Your task to perform on an android device: What's the weather going to be this weekend? Image 0: 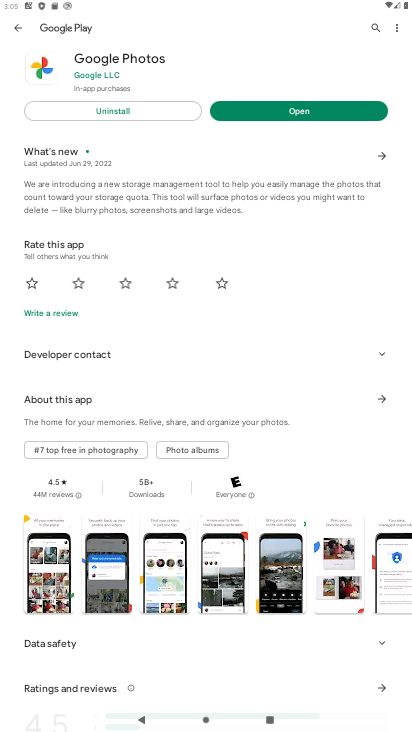
Step 0: press home button
Your task to perform on an android device: What's the weather going to be this weekend? Image 1: 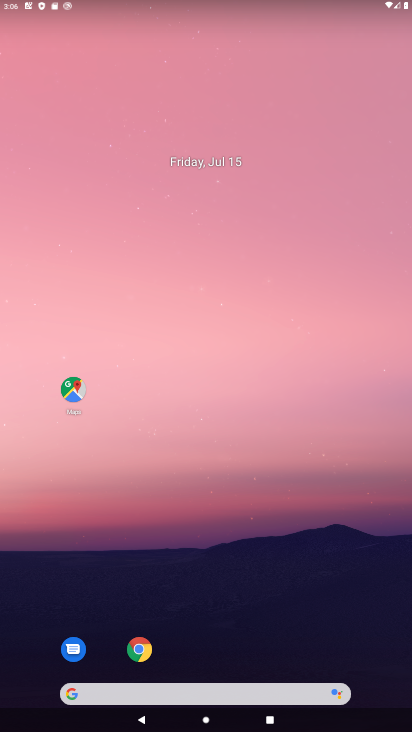
Step 1: drag from (326, 663) to (270, 213)
Your task to perform on an android device: What's the weather going to be this weekend? Image 2: 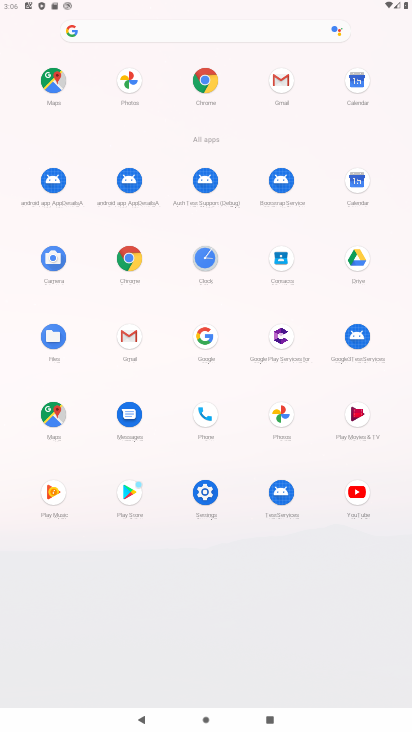
Step 2: click (203, 80)
Your task to perform on an android device: What's the weather going to be this weekend? Image 3: 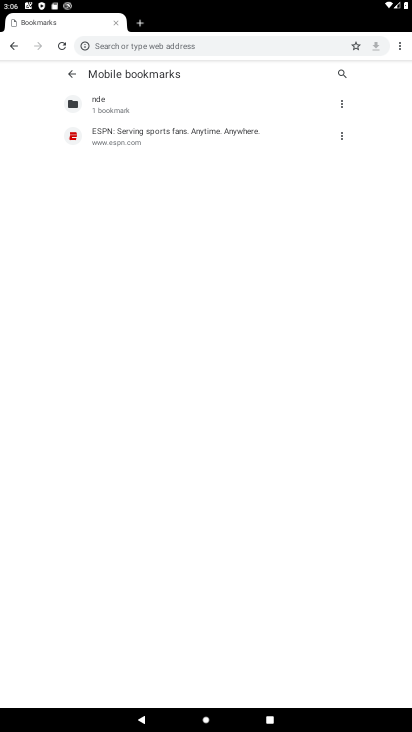
Step 3: click (250, 48)
Your task to perform on an android device: What's the weather going to be this weekend? Image 4: 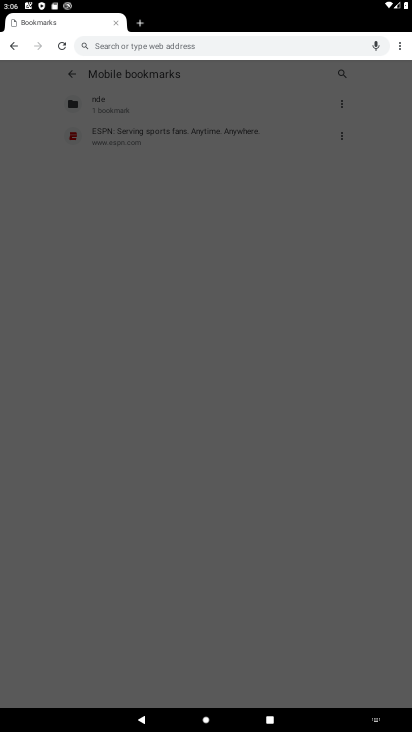
Step 4: type "weather"
Your task to perform on an android device: What's the weather going to be this weekend? Image 5: 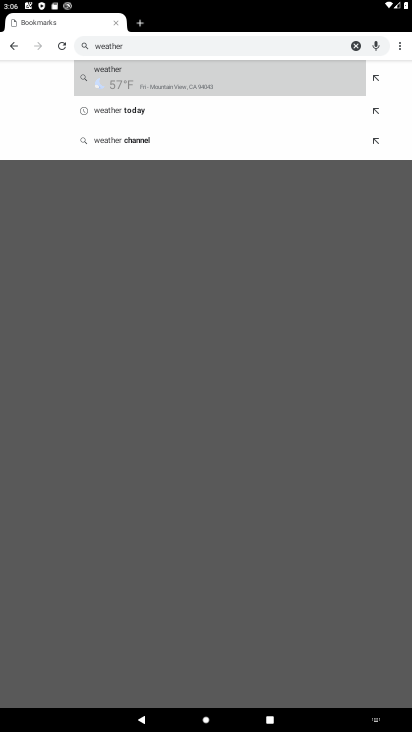
Step 5: click (152, 87)
Your task to perform on an android device: What's the weather going to be this weekend? Image 6: 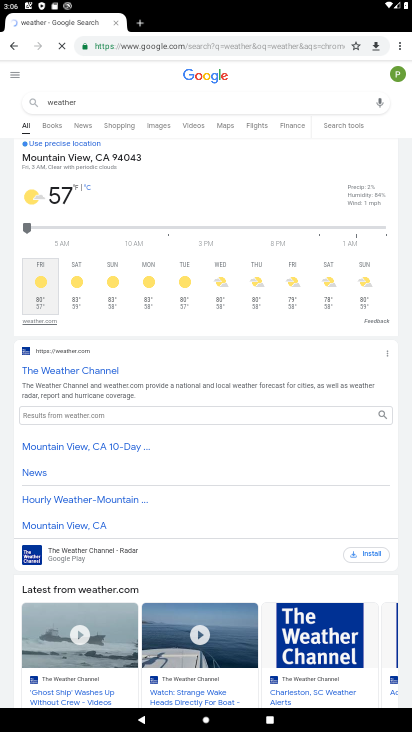
Step 6: click (111, 284)
Your task to perform on an android device: What's the weather going to be this weekend? Image 7: 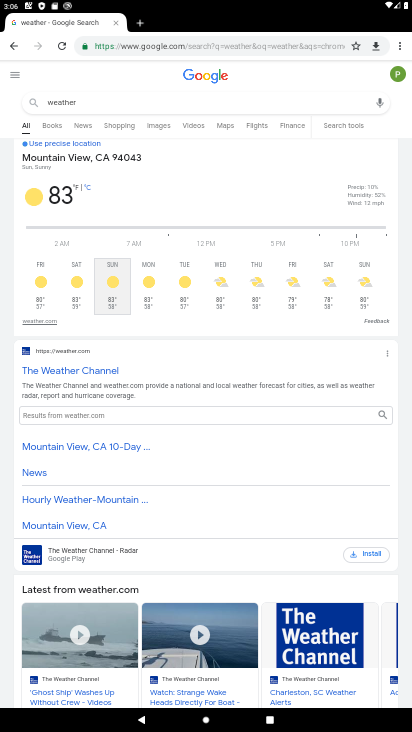
Step 7: task complete